Your task to perform on an android device: search for starred emails in the gmail app Image 0: 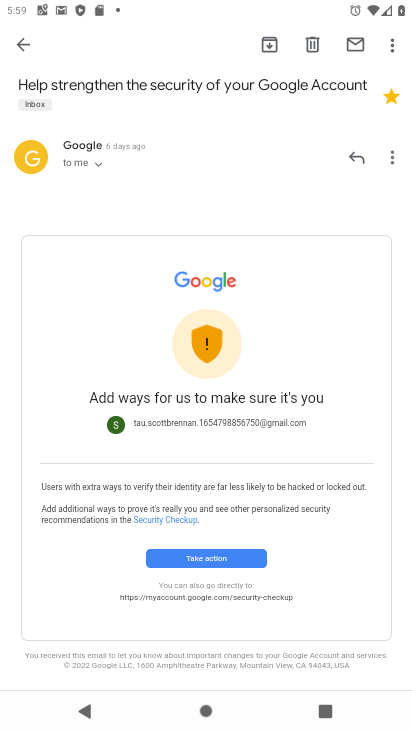
Step 0: press home button
Your task to perform on an android device: search for starred emails in the gmail app Image 1: 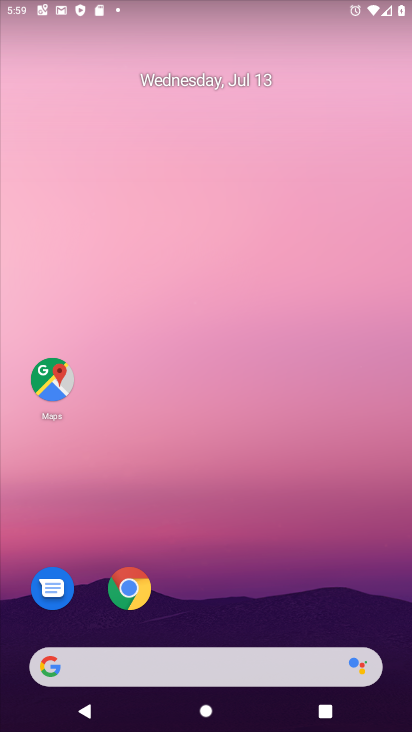
Step 1: drag from (227, 401) to (244, 167)
Your task to perform on an android device: search for starred emails in the gmail app Image 2: 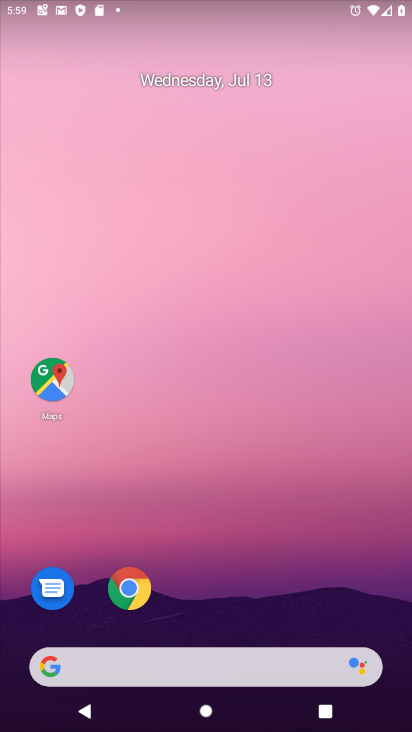
Step 2: drag from (240, 164) to (242, 34)
Your task to perform on an android device: search for starred emails in the gmail app Image 3: 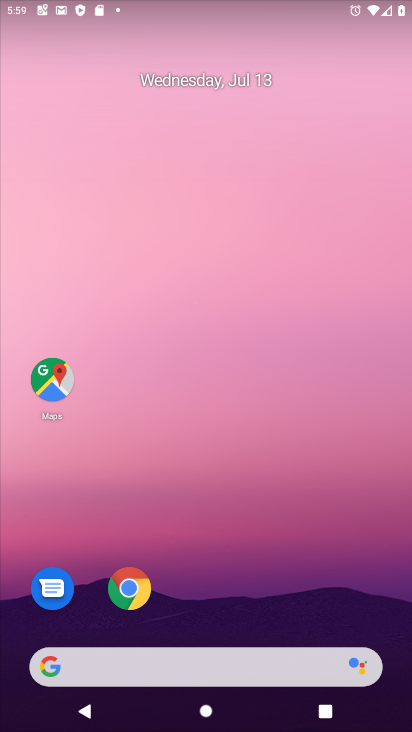
Step 3: drag from (213, 473) to (229, 53)
Your task to perform on an android device: search for starred emails in the gmail app Image 4: 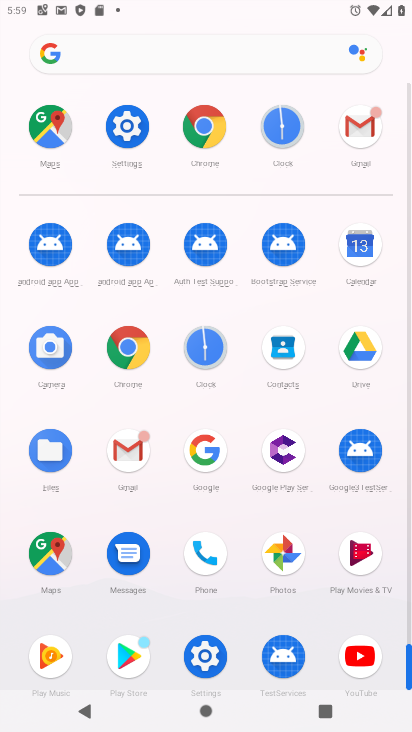
Step 4: click (359, 125)
Your task to perform on an android device: search for starred emails in the gmail app Image 5: 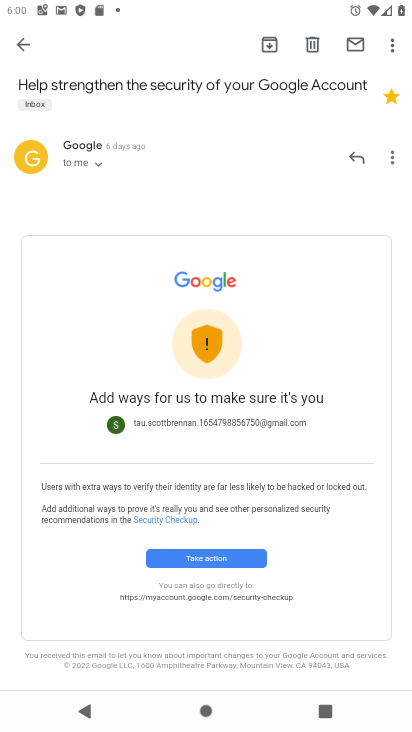
Step 5: click (19, 43)
Your task to perform on an android device: search for starred emails in the gmail app Image 6: 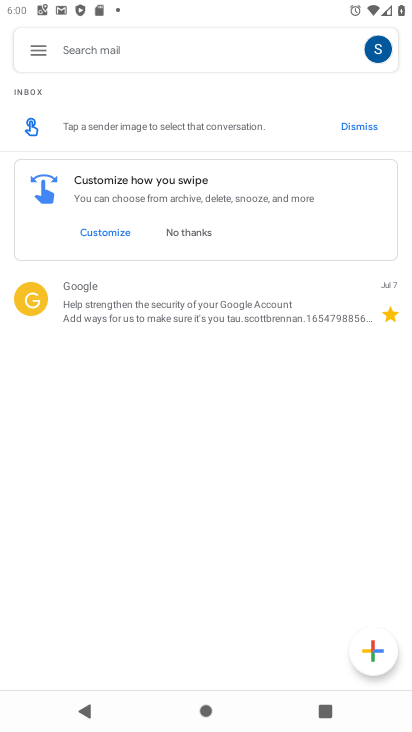
Step 6: click (40, 44)
Your task to perform on an android device: search for starred emails in the gmail app Image 7: 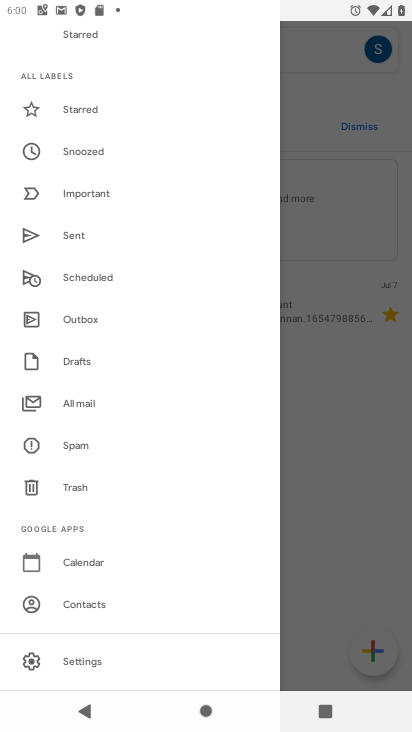
Step 7: click (80, 109)
Your task to perform on an android device: search for starred emails in the gmail app Image 8: 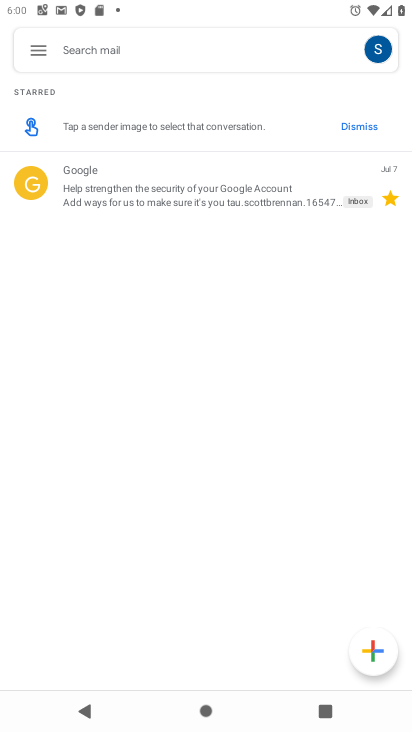
Step 8: task complete